Your task to perform on an android device: toggle translation in the chrome app Image 0: 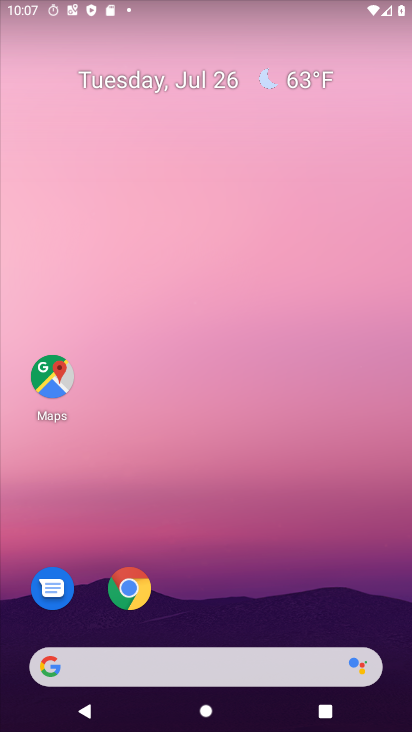
Step 0: click (131, 594)
Your task to perform on an android device: toggle translation in the chrome app Image 1: 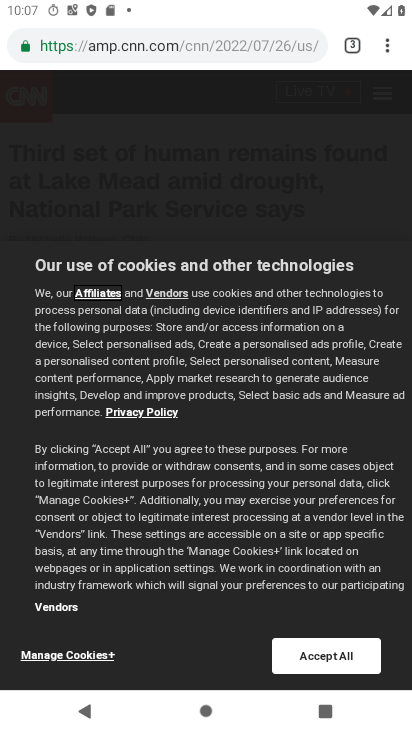
Step 1: click (392, 46)
Your task to perform on an android device: toggle translation in the chrome app Image 2: 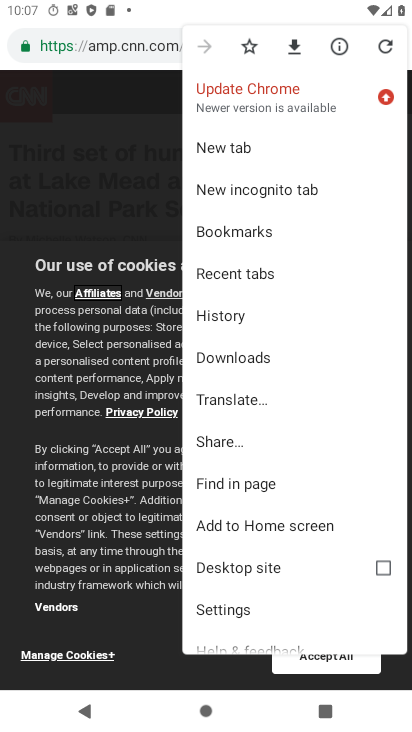
Step 2: click (265, 613)
Your task to perform on an android device: toggle translation in the chrome app Image 3: 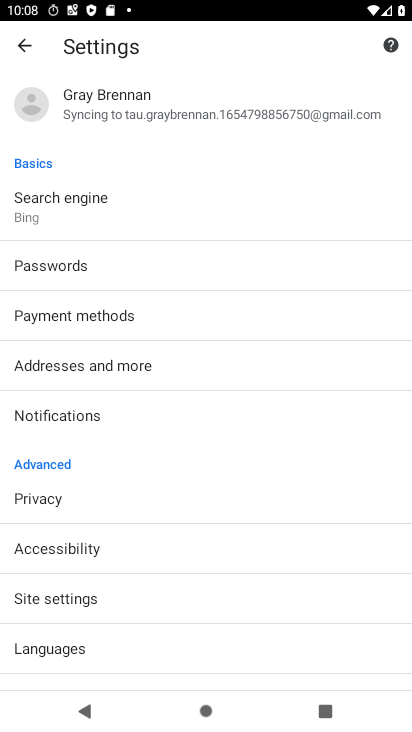
Step 3: click (72, 648)
Your task to perform on an android device: toggle translation in the chrome app Image 4: 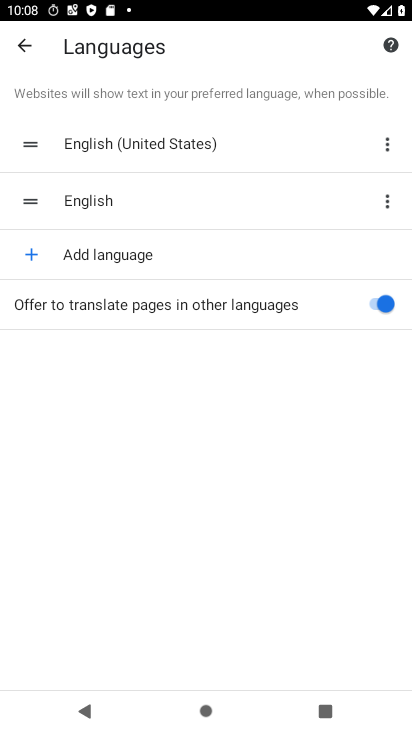
Step 4: click (380, 314)
Your task to perform on an android device: toggle translation in the chrome app Image 5: 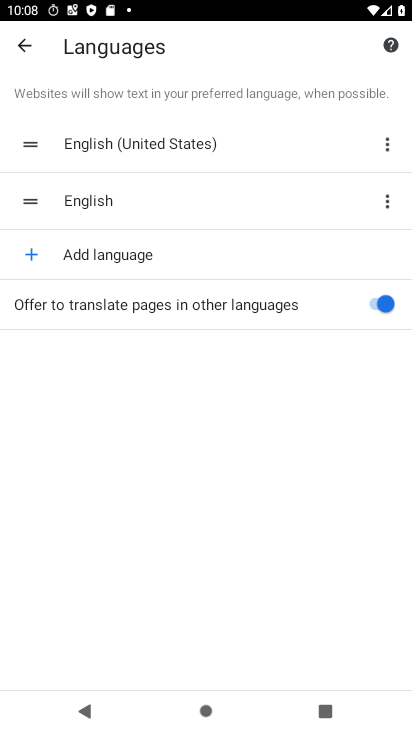
Step 5: click (380, 314)
Your task to perform on an android device: toggle translation in the chrome app Image 6: 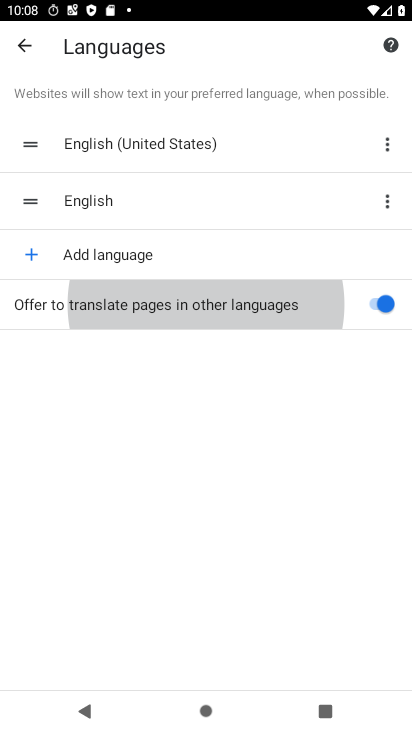
Step 6: click (380, 314)
Your task to perform on an android device: toggle translation in the chrome app Image 7: 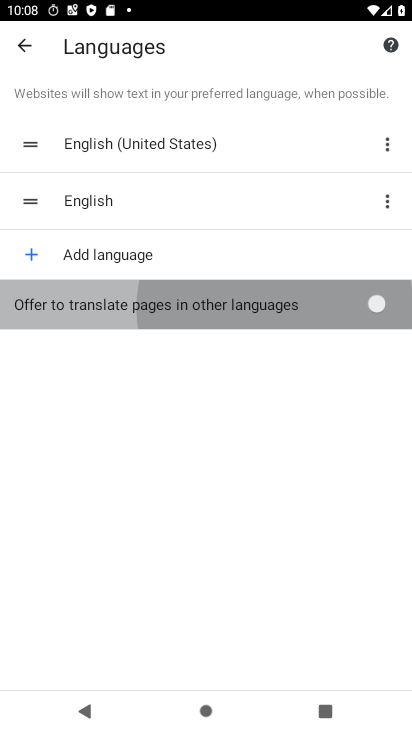
Step 7: click (380, 314)
Your task to perform on an android device: toggle translation in the chrome app Image 8: 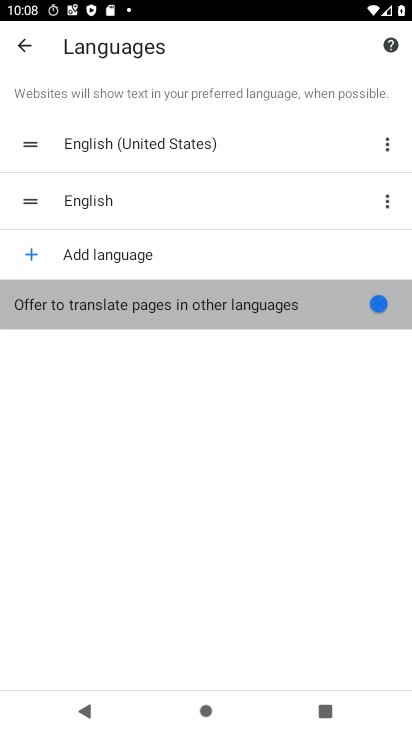
Step 8: click (380, 314)
Your task to perform on an android device: toggle translation in the chrome app Image 9: 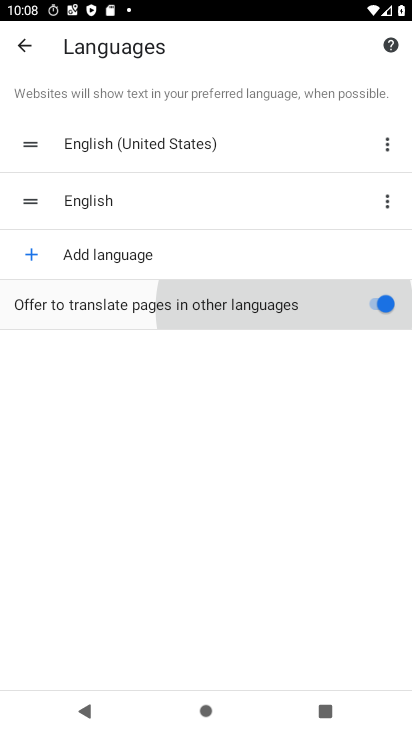
Step 9: click (380, 314)
Your task to perform on an android device: toggle translation in the chrome app Image 10: 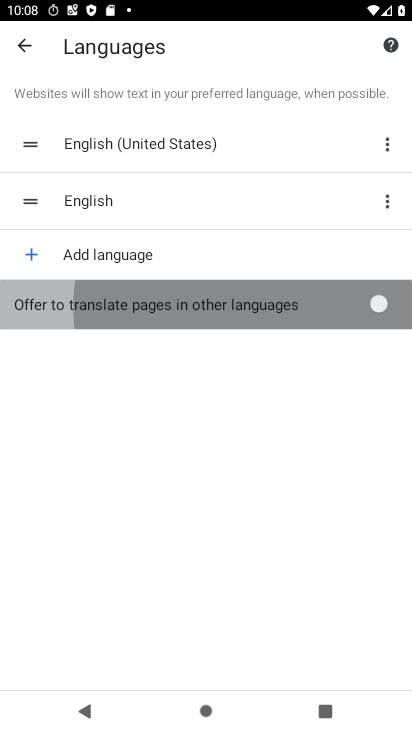
Step 10: click (380, 314)
Your task to perform on an android device: toggle translation in the chrome app Image 11: 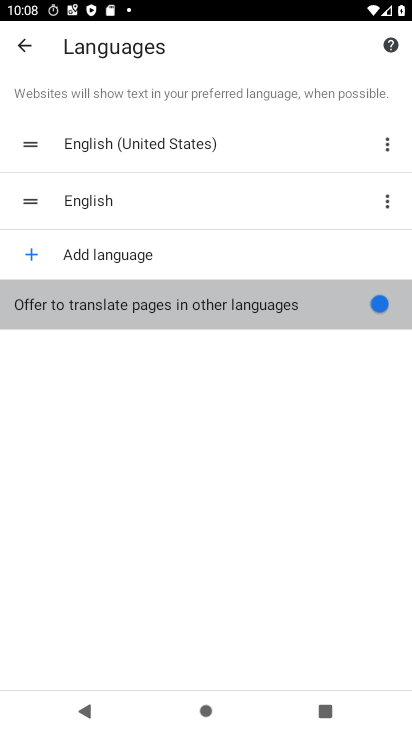
Step 11: click (380, 314)
Your task to perform on an android device: toggle translation in the chrome app Image 12: 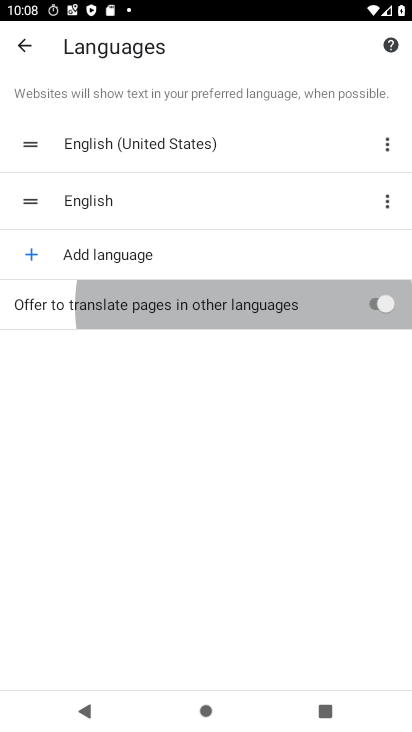
Step 12: click (380, 314)
Your task to perform on an android device: toggle translation in the chrome app Image 13: 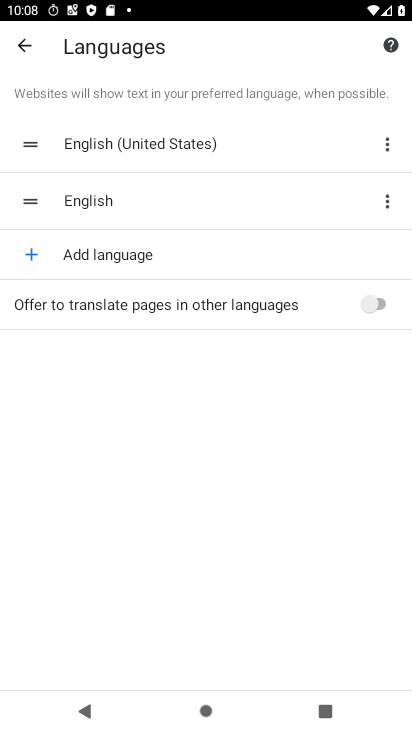
Step 13: click (380, 314)
Your task to perform on an android device: toggle translation in the chrome app Image 14: 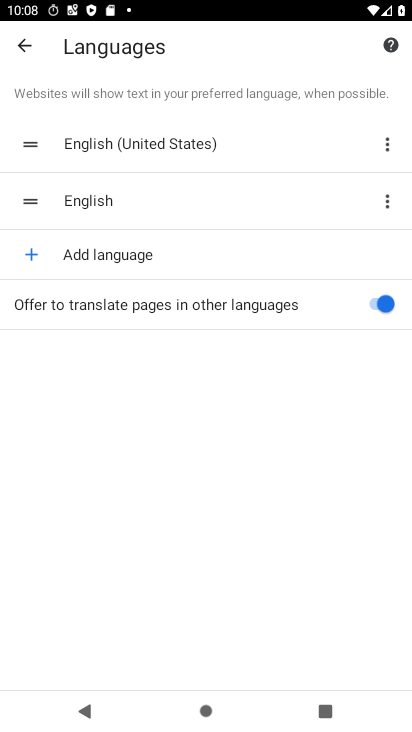
Step 14: task complete